Your task to perform on an android device: install app "The Home Depot" Image 0: 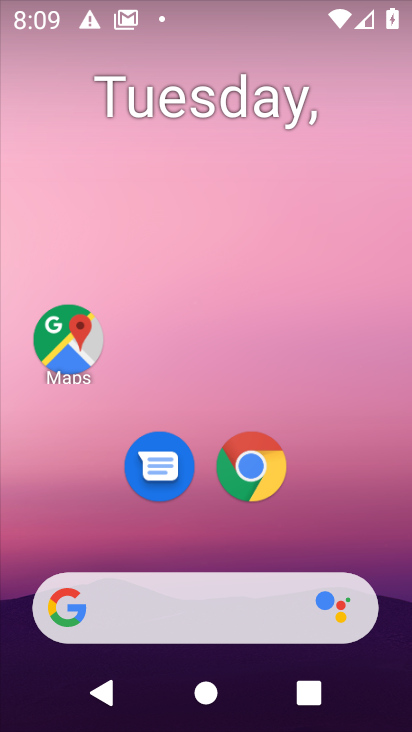
Step 0: drag from (161, 531) to (231, 3)
Your task to perform on an android device: install app "The Home Depot" Image 1: 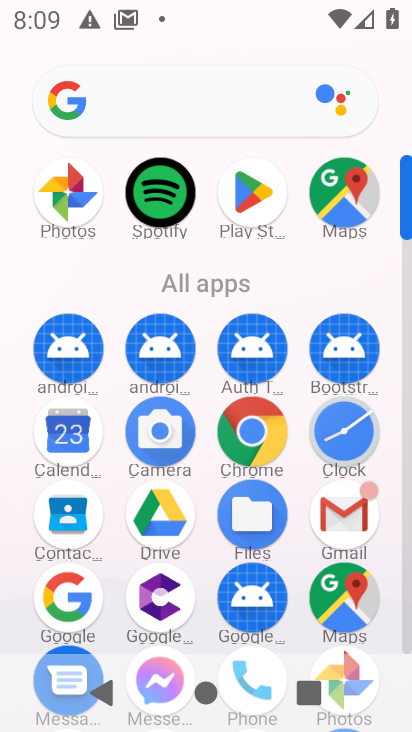
Step 1: click (242, 188)
Your task to perform on an android device: install app "The Home Depot" Image 2: 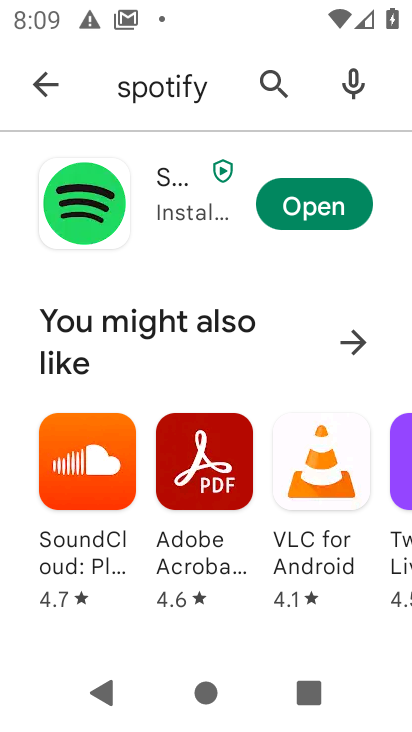
Step 2: click (273, 101)
Your task to perform on an android device: install app "The Home Depot" Image 3: 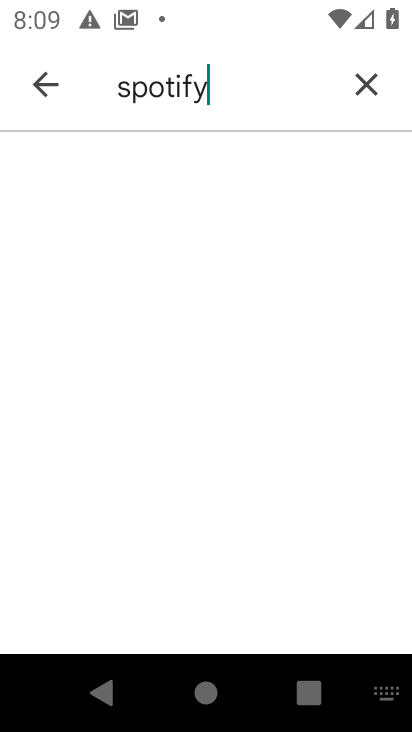
Step 3: click (374, 79)
Your task to perform on an android device: install app "The Home Depot" Image 4: 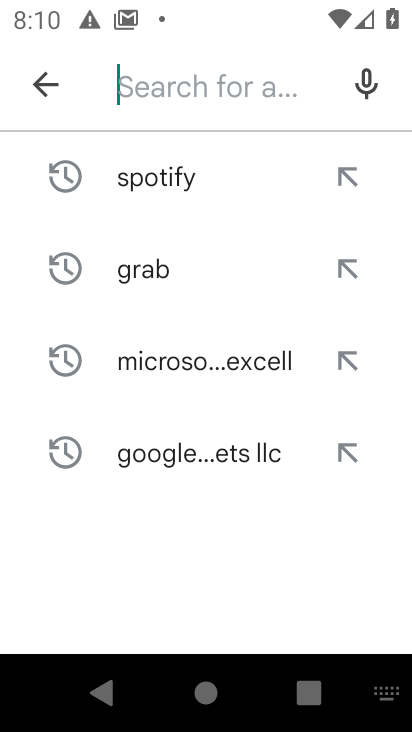
Step 4: click (165, 71)
Your task to perform on an android device: install app "The Home Depot" Image 5: 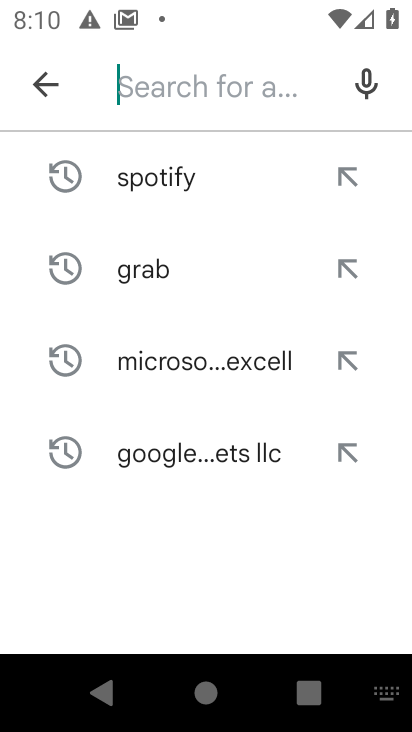
Step 5: type "The Home Depot"
Your task to perform on an android device: install app "The Home Depot" Image 6: 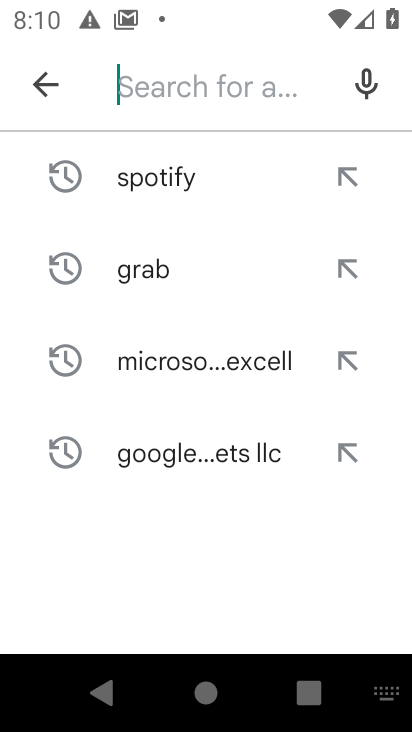
Step 6: click (174, 573)
Your task to perform on an android device: install app "The Home Depot" Image 7: 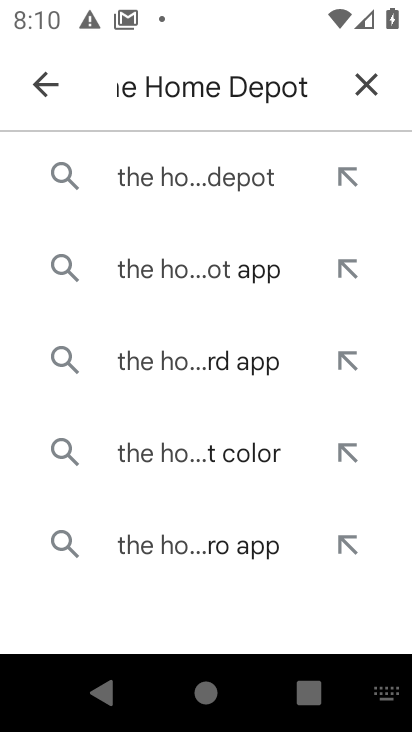
Step 7: click (127, 172)
Your task to perform on an android device: install app "The Home Depot" Image 8: 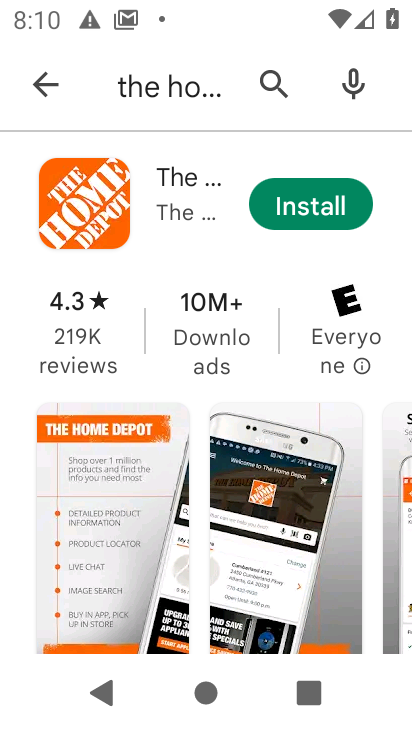
Step 8: click (301, 214)
Your task to perform on an android device: install app "The Home Depot" Image 9: 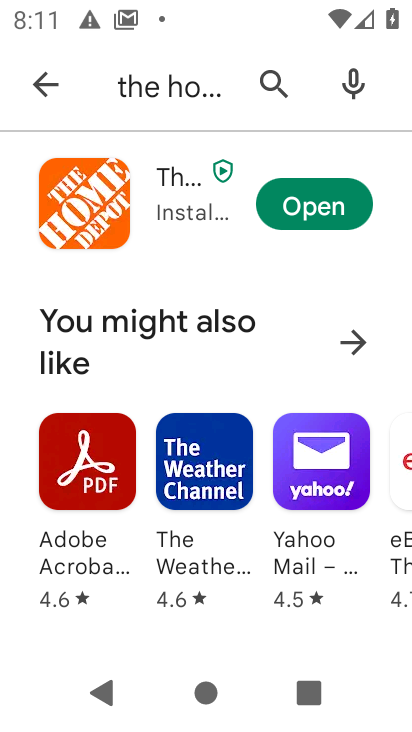
Step 9: task complete